Your task to perform on an android device: change the clock display to digital Image 0: 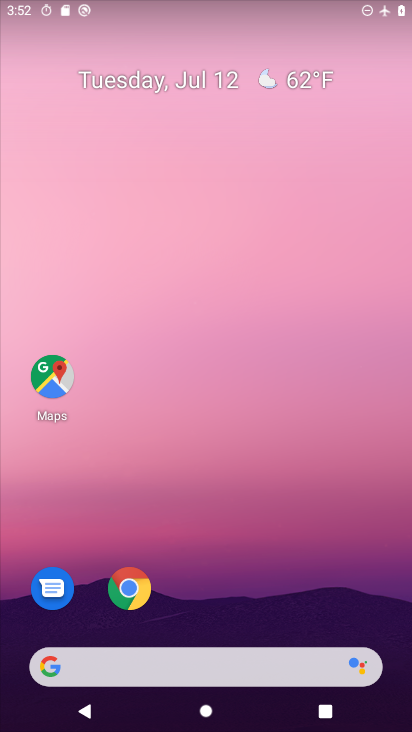
Step 0: drag from (208, 620) to (121, 17)
Your task to perform on an android device: change the clock display to digital Image 1: 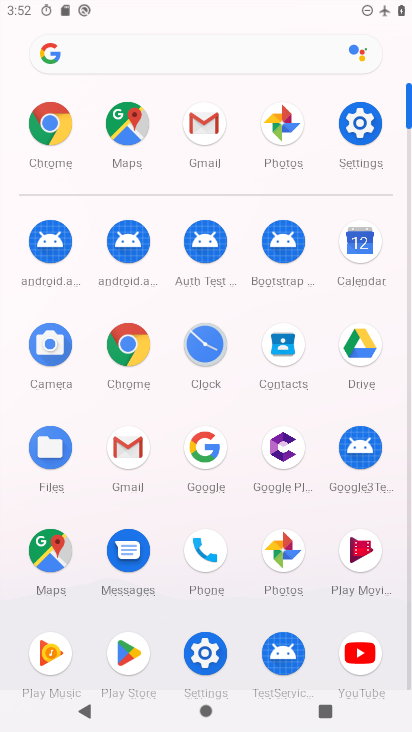
Step 1: click (210, 359)
Your task to perform on an android device: change the clock display to digital Image 2: 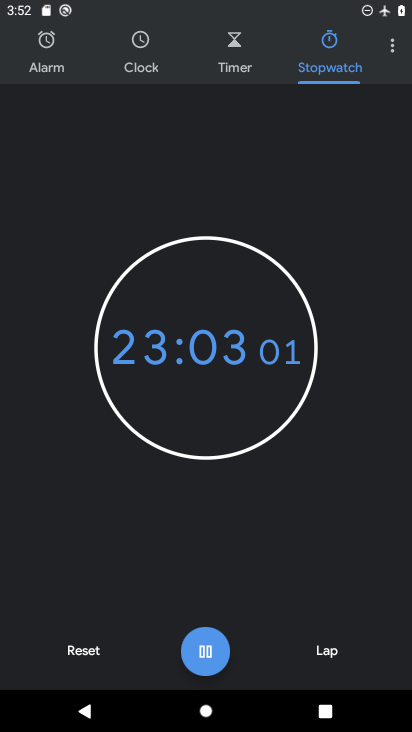
Step 2: click (389, 51)
Your task to perform on an android device: change the clock display to digital Image 3: 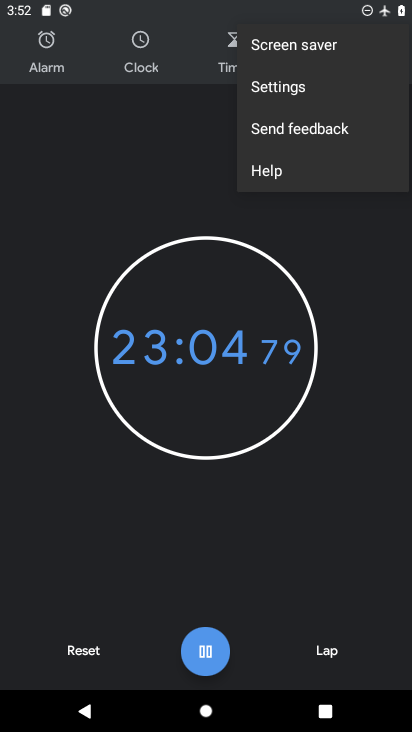
Step 3: click (280, 97)
Your task to perform on an android device: change the clock display to digital Image 4: 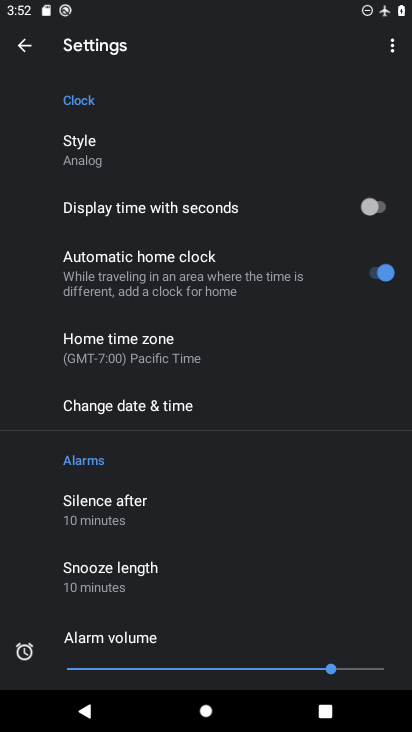
Step 4: click (119, 158)
Your task to perform on an android device: change the clock display to digital Image 5: 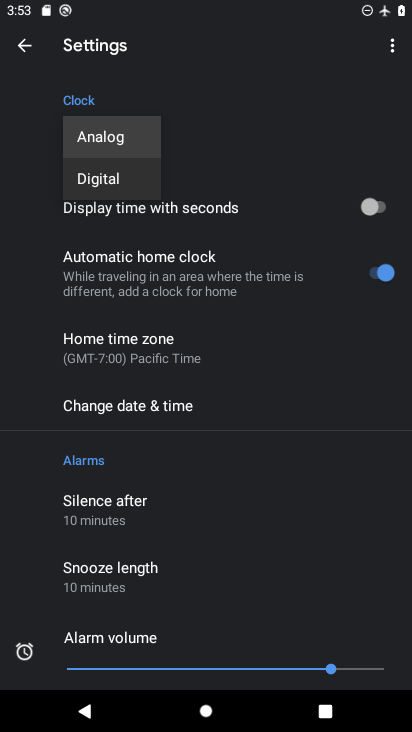
Step 5: click (106, 177)
Your task to perform on an android device: change the clock display to digital Image 6: 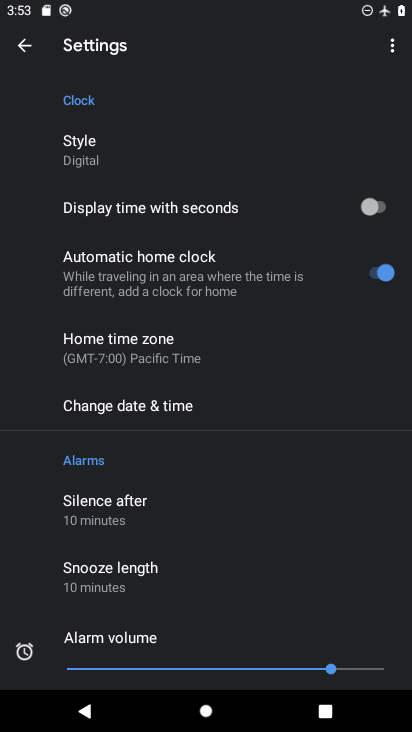
Step 6: task complete